Your task to perform on an android device: set an alarm Image 0: 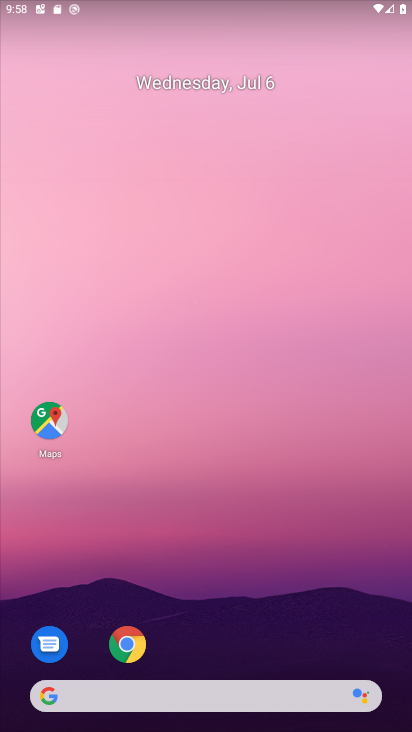
Step 0: drag from (229, 625) to (242, 19)
Your task to perform on an android device: set an alarm Image 1: 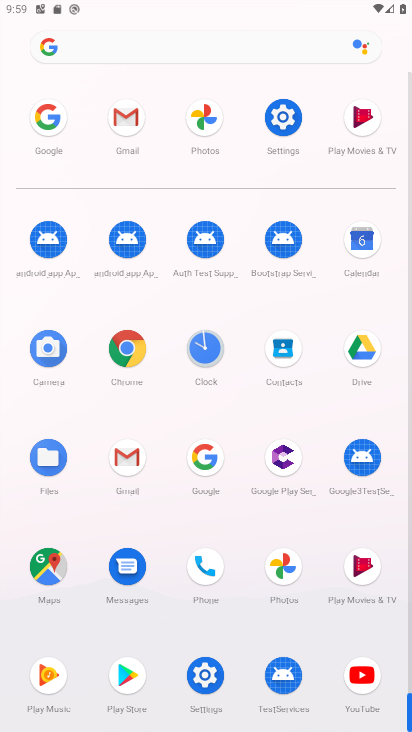
Step 1: click (205, 362)
Your task to perform on an android device: set an alarm Image 2: 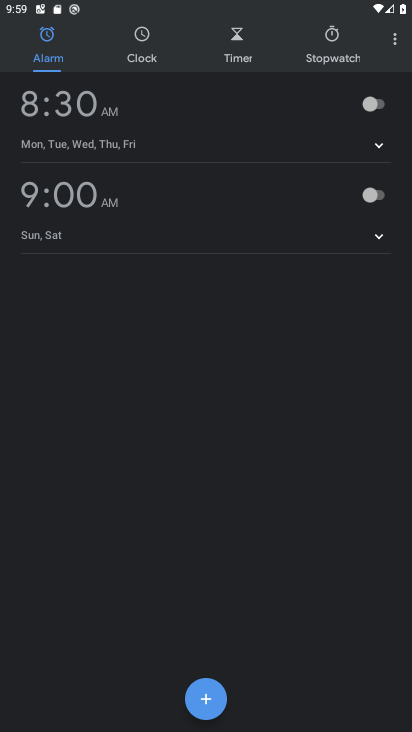
Step 2: click (201, 706)
Your task to perform on an android device: set an alarm Image 3: 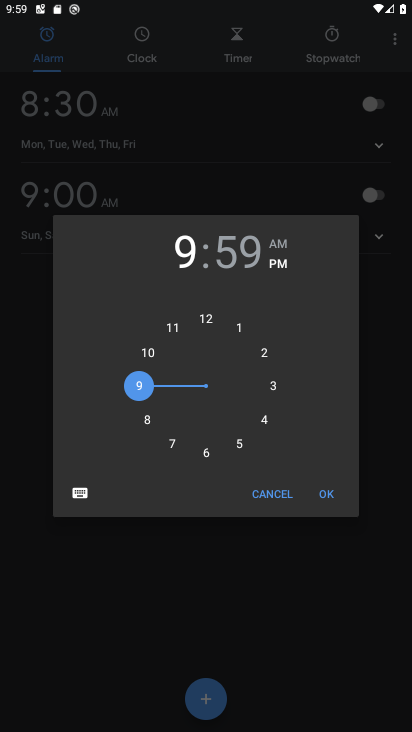
Step 3: click (329, 493)
Your task to perform on an android device: set an alarm Image 4: 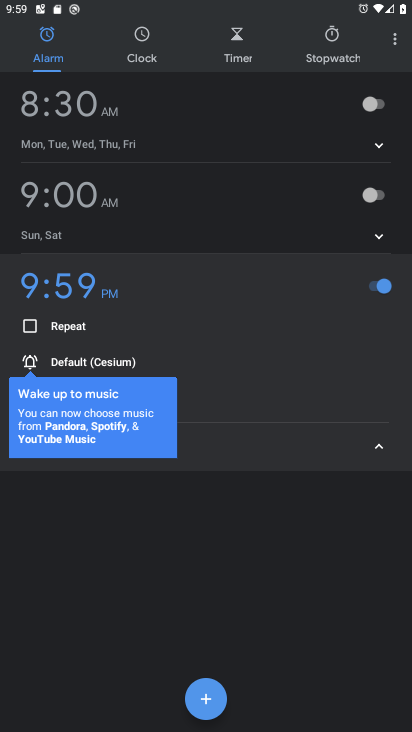
Step 4: task complete